Your task to perform on an android device: change the upload size in google photos Image 0: 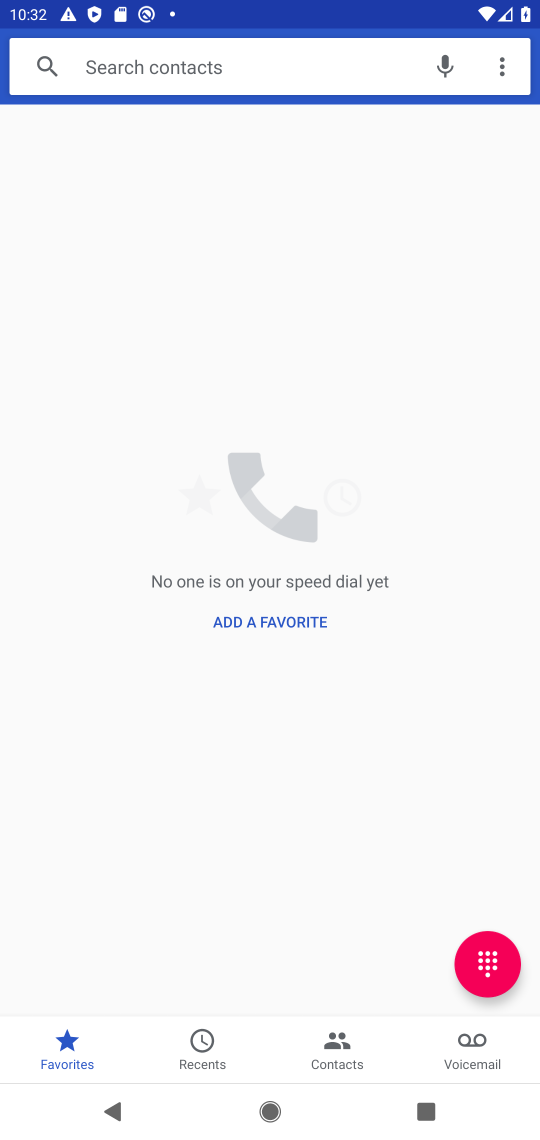
Step 0: press home button
Your task to perform on an android device: change the upload size in google photos Image 1: 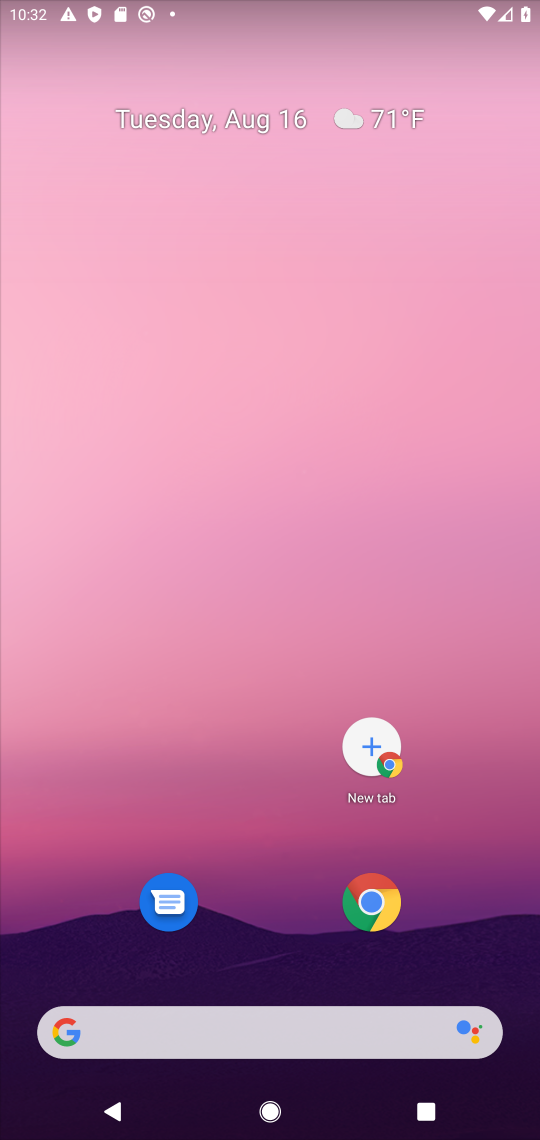
Step 1: drag from (254, 987) to (240, 339)
Your task to perform on an android device: change the upload size in google photos Image 2: 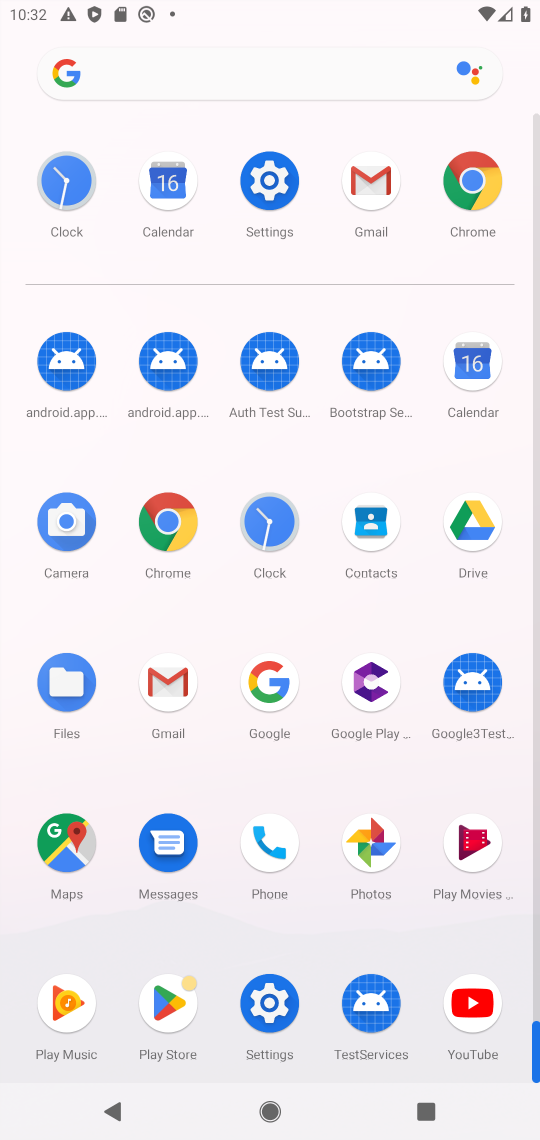
Step 2: click (371, 843)
Your task to perform on an android device: change the upload size in google photos Image 3: 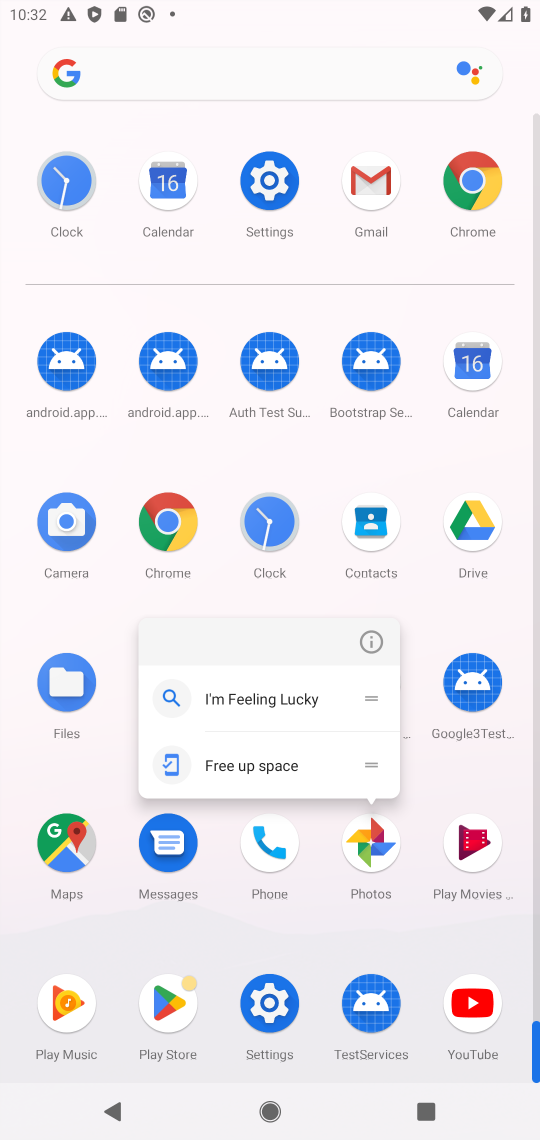
Step 3: click (372, 843)
Your task to perform on an android device: change the upload size in google photos Image 4: 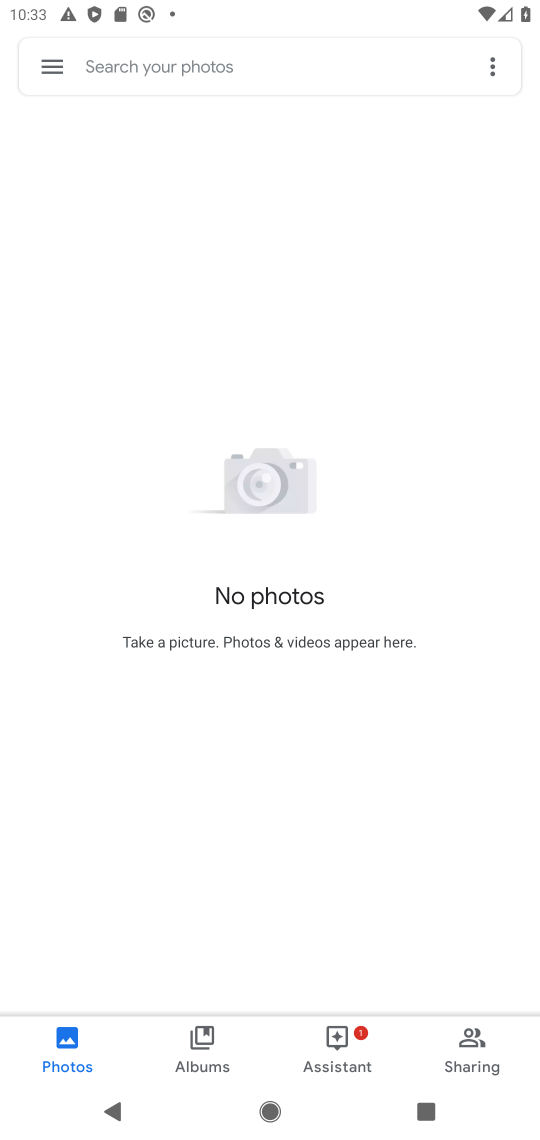
Step 4: click (46, 67)
Your task to perform on an android device: change the upload size in google photos Image 5: 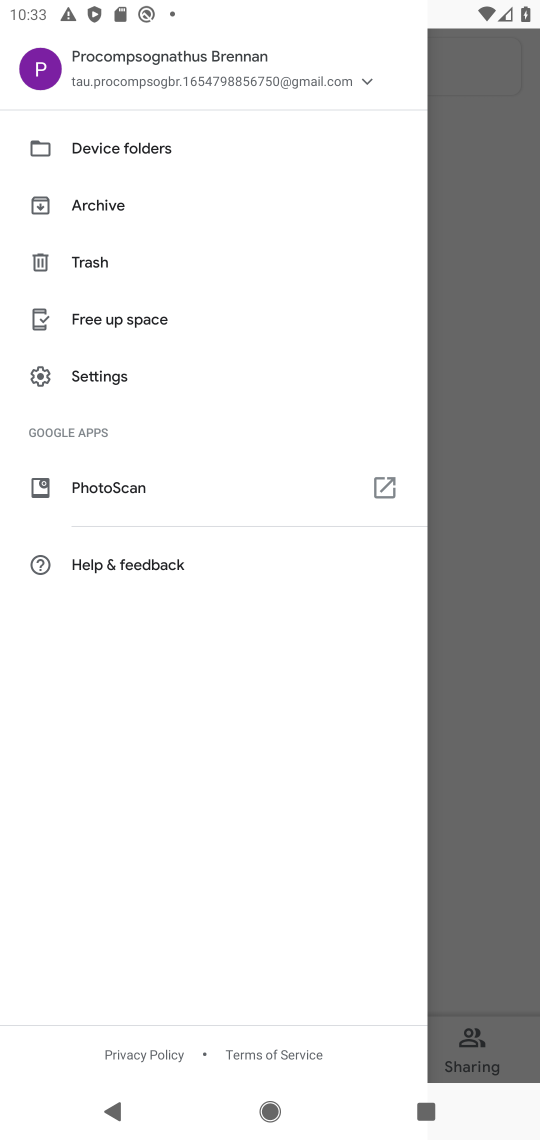
Step 5: click (82, 373)
Your task to perform on an android device: change the upload size in google photos Image 6: 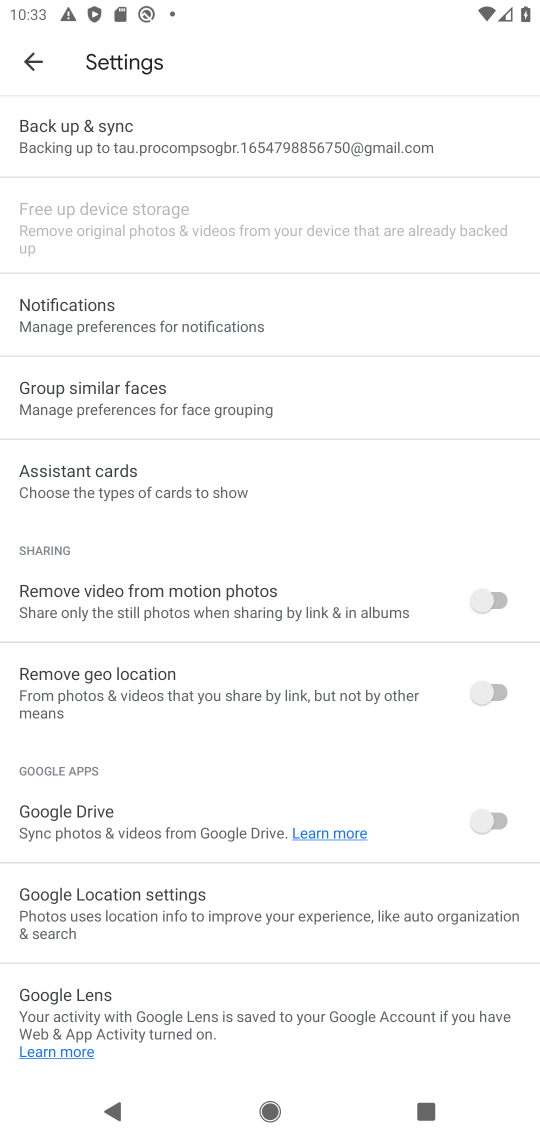
Step 6: click (123, 144)
Your task to perform on an android device: change the upload size in google photos Image 7: 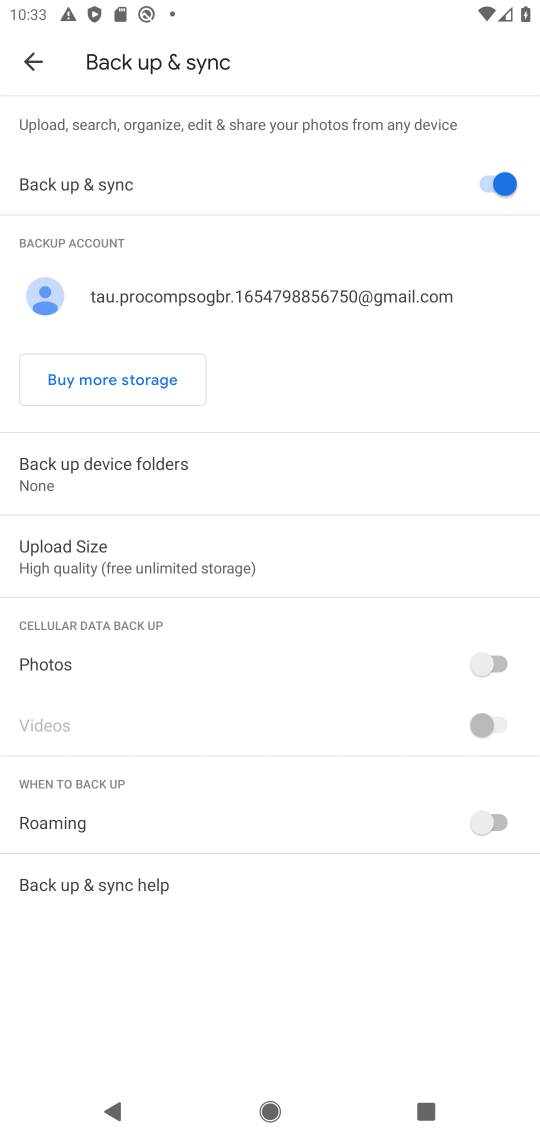
Step 7: click (89, 554)
Your task to perform on an android device: change the upload size in google photos Image 8: 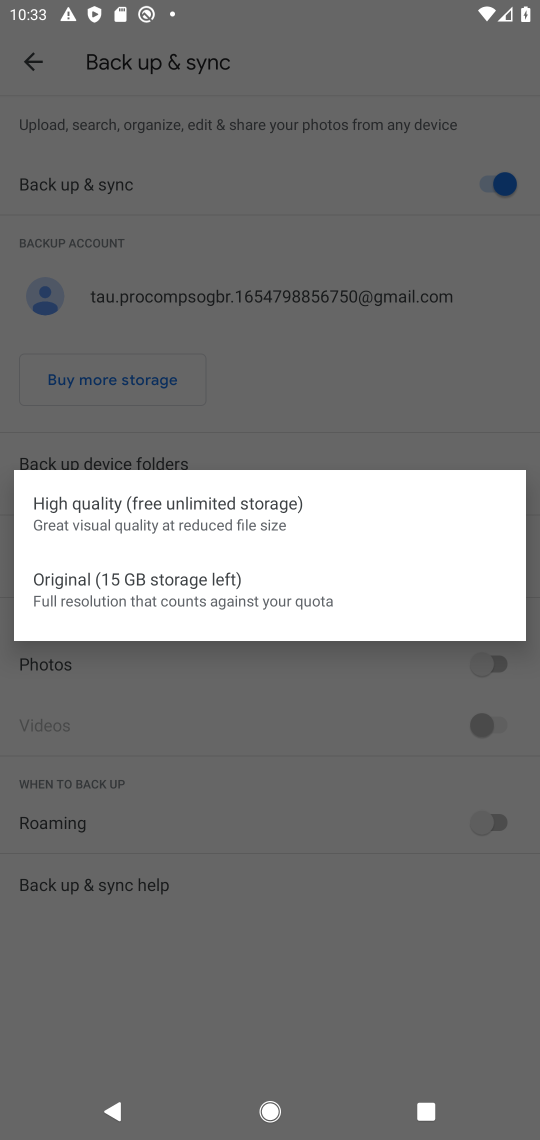
Step 8: click (122, 582)
Your task to perform on an android device: change the upload size in google photos Image 9: 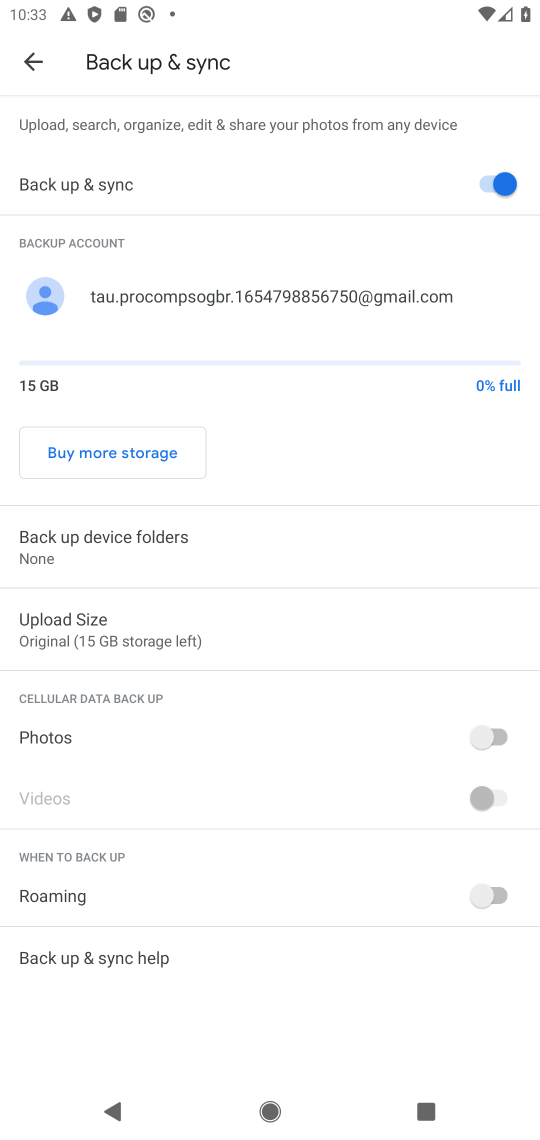
Step 9: task complete